Your task to perform on an android device: Open Google Chrome Image 0: 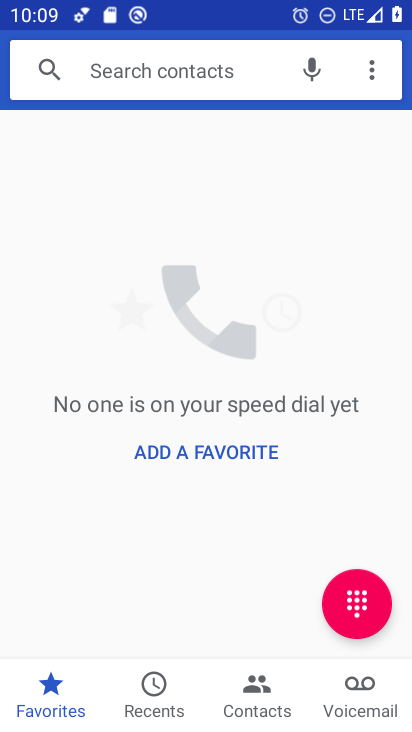
Step 0: press home button
Your task to perform on an android device: Open Google Chrome Image 1: 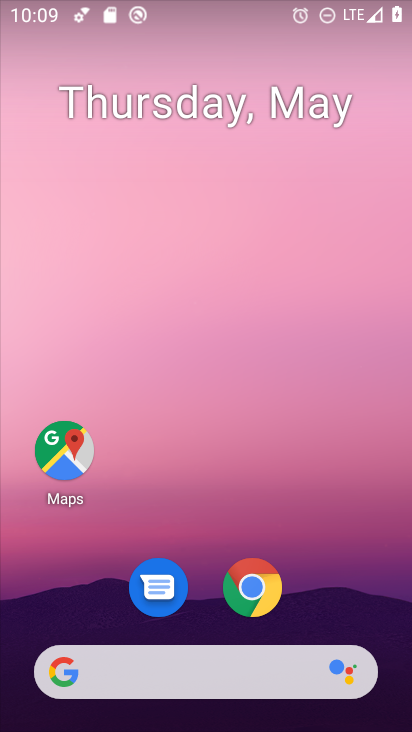
Step 1: click (258, 588)
Your task to perform on an android device: Open Google Chrome Image 2: 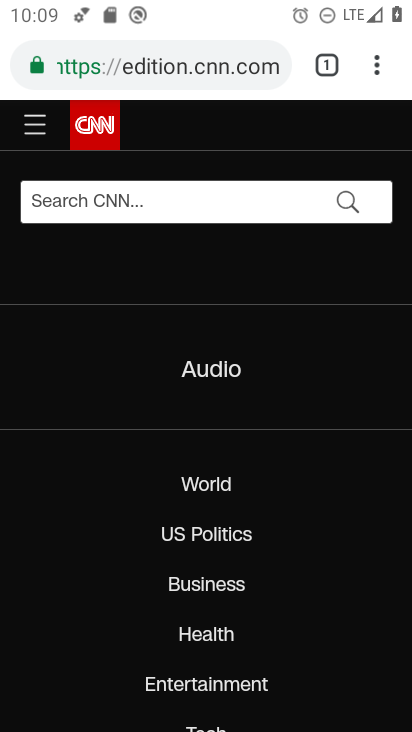
Step 2: task complete